Your task to perform on an android device: check storage Image 0: 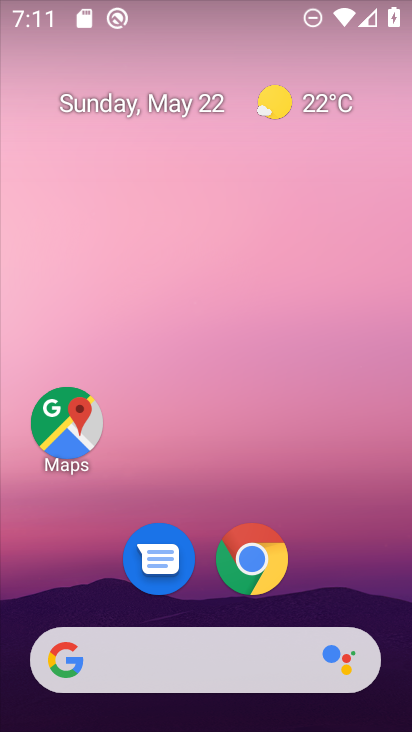
Step 0: press home button
Your task to perform on an android device: check storage Image 1: 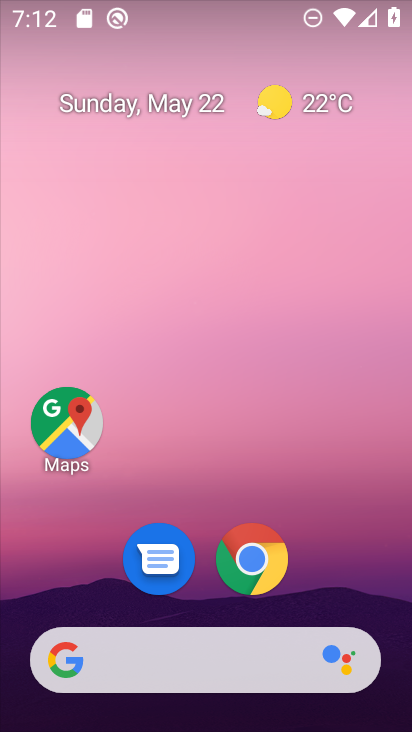
Step 1: drag from (276, 675) to (220, 0)
Your task to perform on an android device: check storage Image 2: 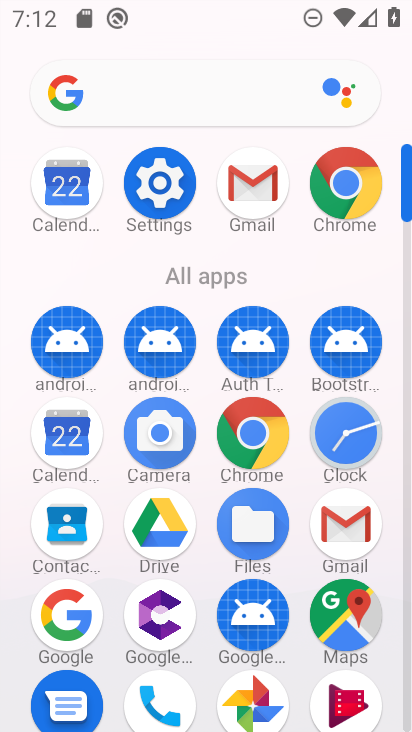
Step 2: drag from (111, 572) to (99, 333)
Your task to perform on an android device: check storage Image 3: 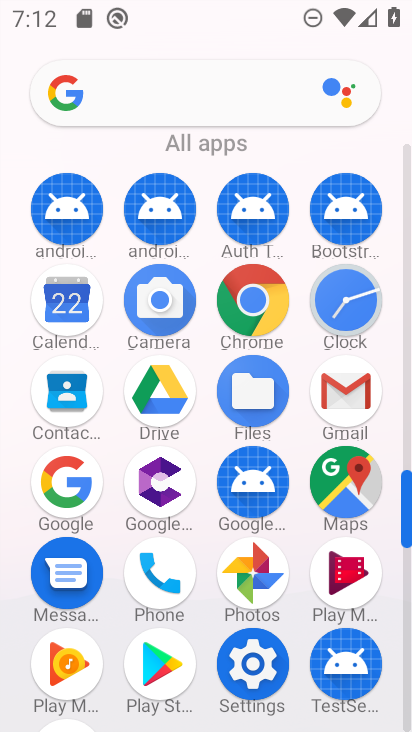
Step 3: click (257, 655)
Your task to perform on an android device: check storage Image 4: 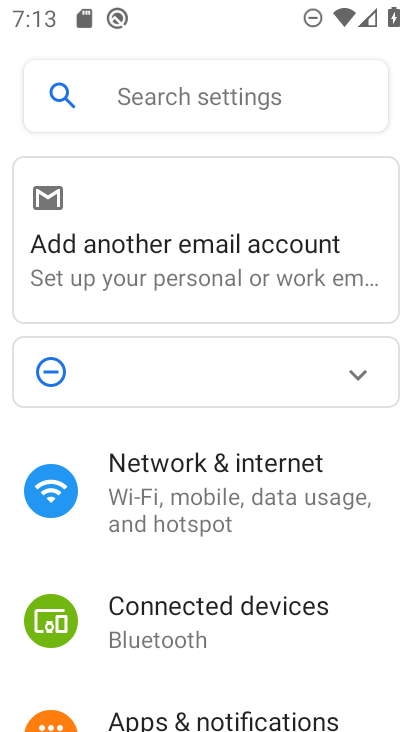
Step 4: click (117, 112)
Your task to perform on an android device: check storage Image 5: 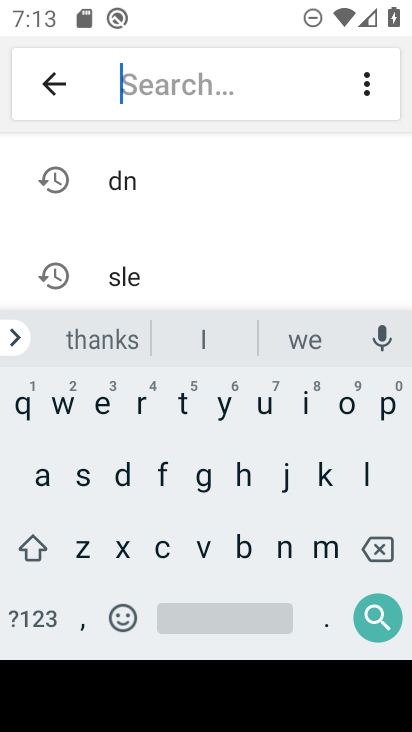
Step 5: click (82, 474)
Your task to perform on an android device: check storage Image 6: 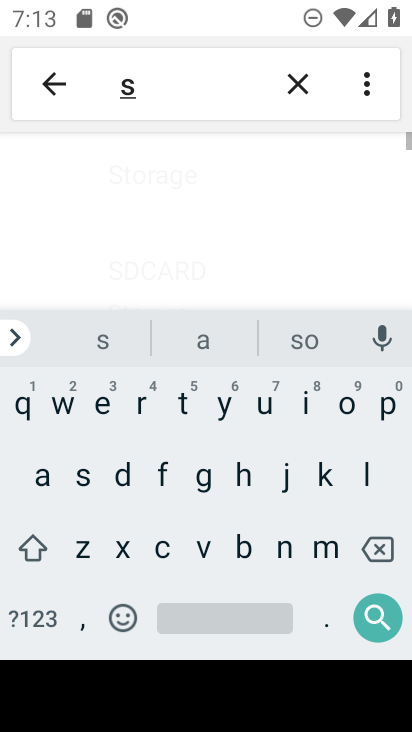
Step 6: click (181, 408)
Your task to perform on an android device: check storage Image 7: 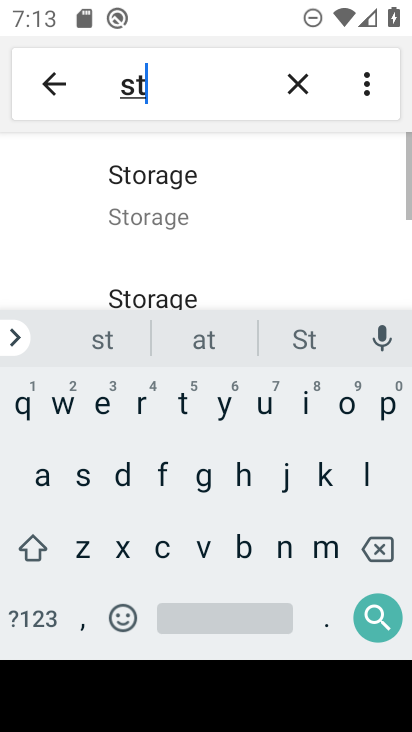
Step 7: click (172, 176)
Your task to perform on an android device: check storage Image 8: 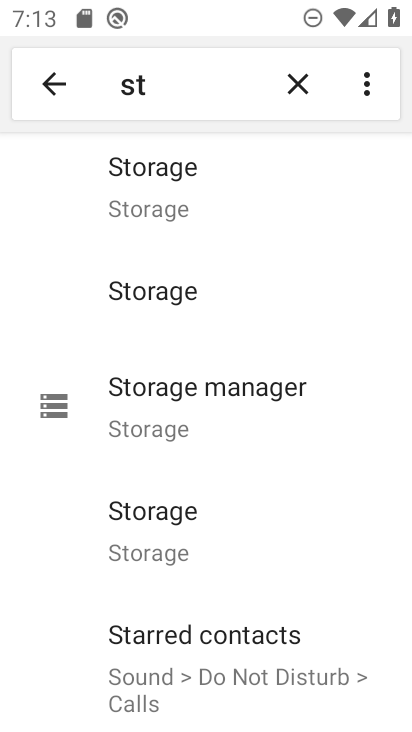
Step 8: click (188, 187)
Your task to perform on an android device: check storage Image 9: 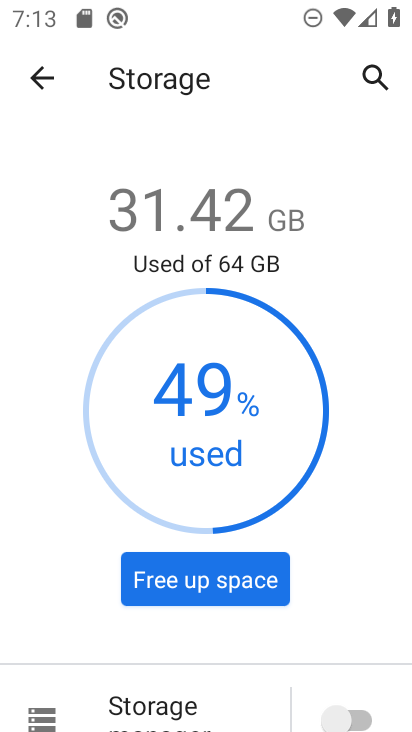
Step 9: task complete